Your task to perform on an android device: What's the weather today? Image 0: 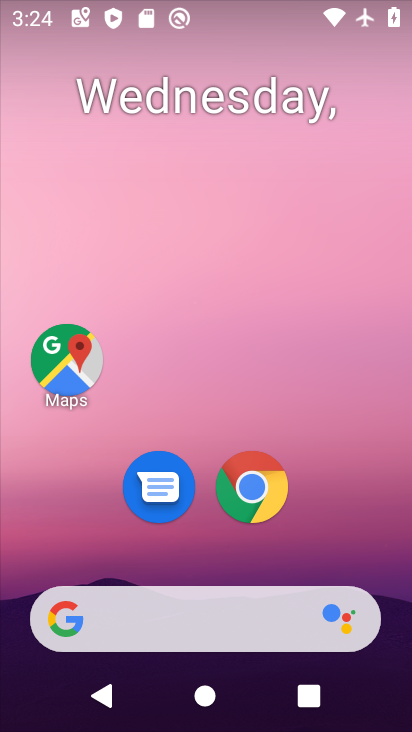
Step 0: drag from (308, 551) to (235, 53)
Your task to perform on an android device: What's the weather today? Image 1: 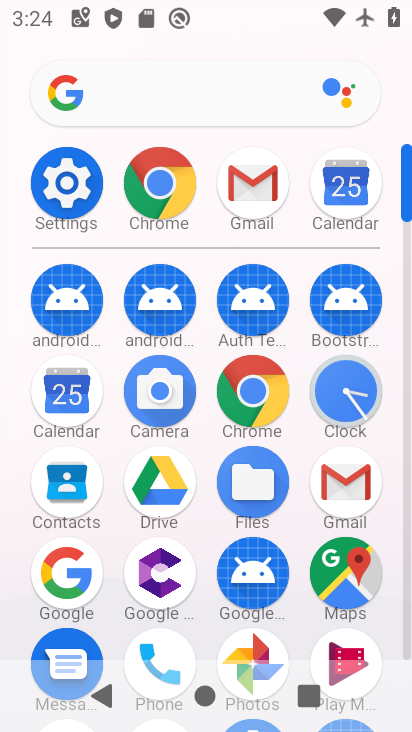
Step 1: click (61, 99)
Your task to perform on an android device: What's the weather today? Image 2: 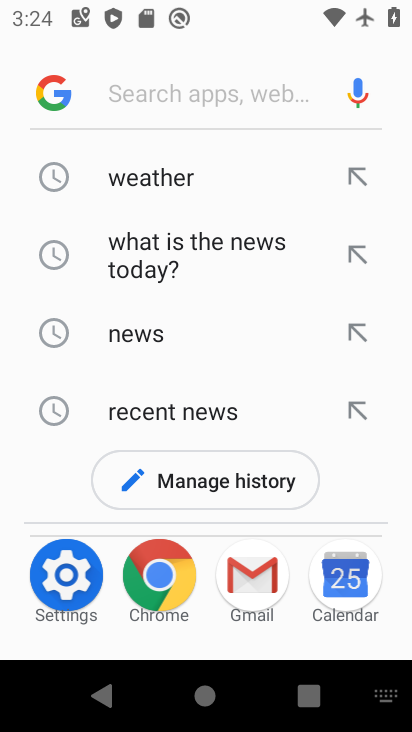
Step 2: click (60, 99)
Your task to perform on an android device: What's the weather today? Image 3: 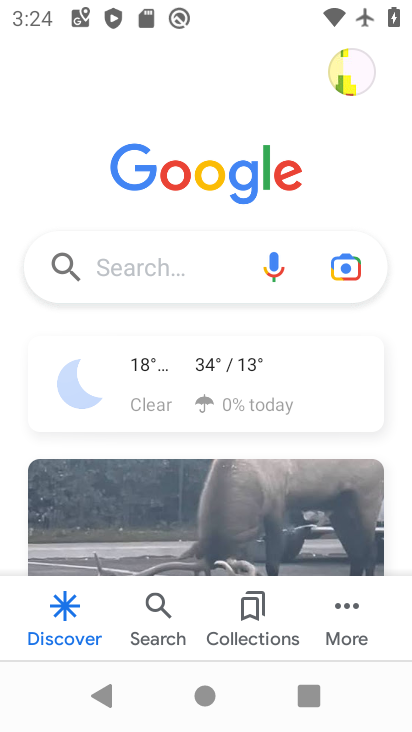
Step 3: click (201, 347)
Your task to perform on an android device: What's the weather today? Image 4: 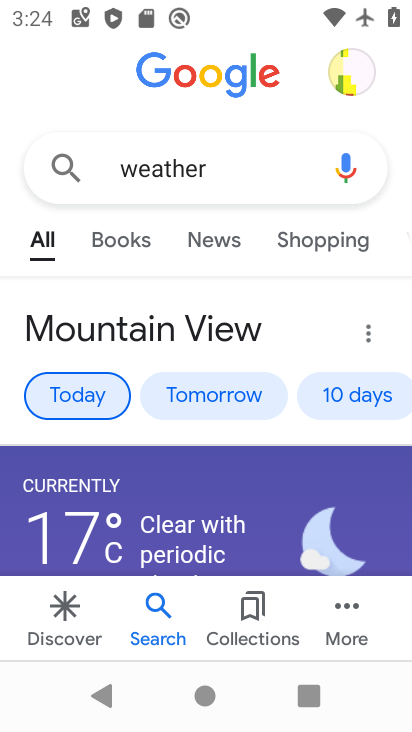
Step 4: task complete